Your task to perform on an android device: set the timer Image 0: 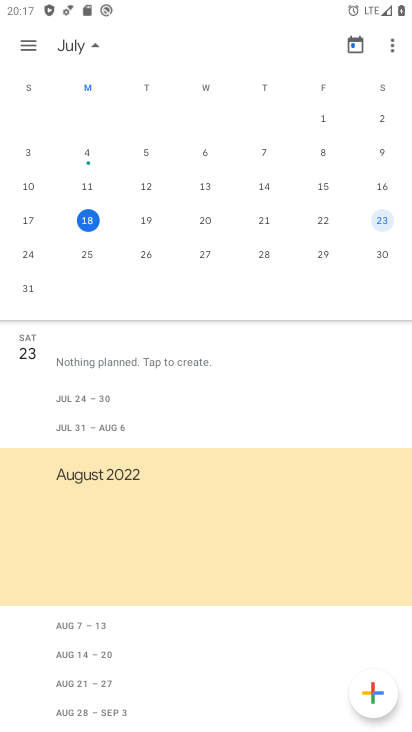
Step 0: press home button
Your task to perform on an android device: set the timer Image 1: 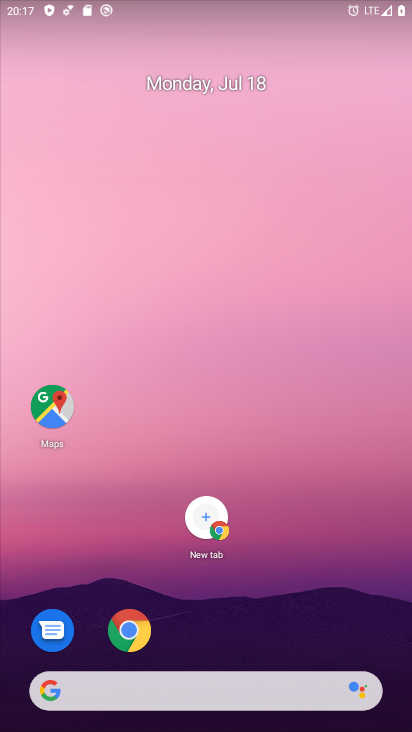
Step 1: drag from (191, 678) to (277, 208)
Your task to perform on an android device: set the timer Image 2: 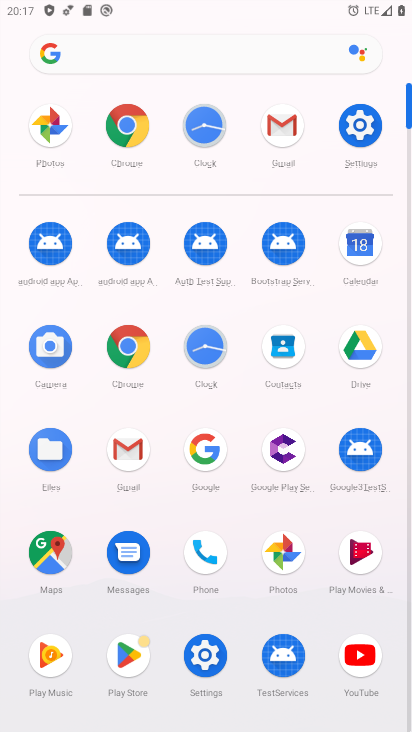
Step 2: click (188, 130)
Your task to perform on an android device: set the timer Image 3: 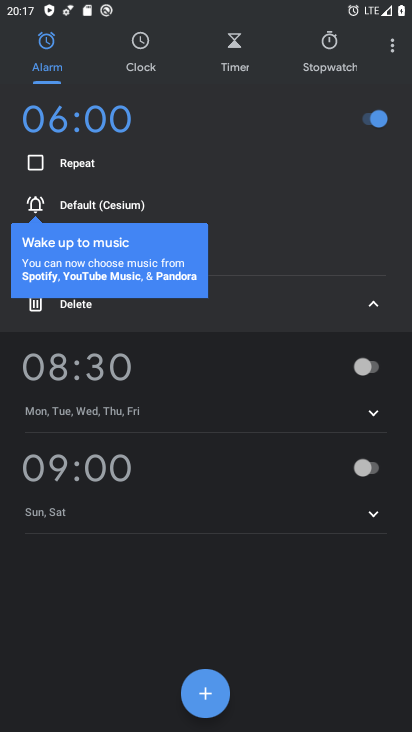
Step 3: click (224, 47)
Your task to perform on an android device: set the timer Image 4: 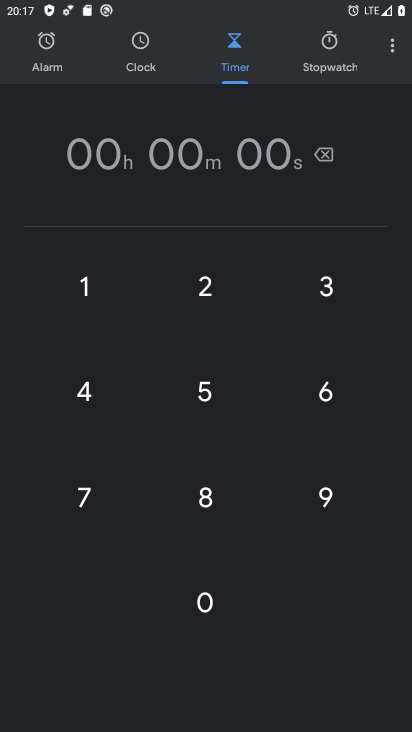
Step 4: click (204, 602)
Your task to perform on an android device: set the timer Image 5: 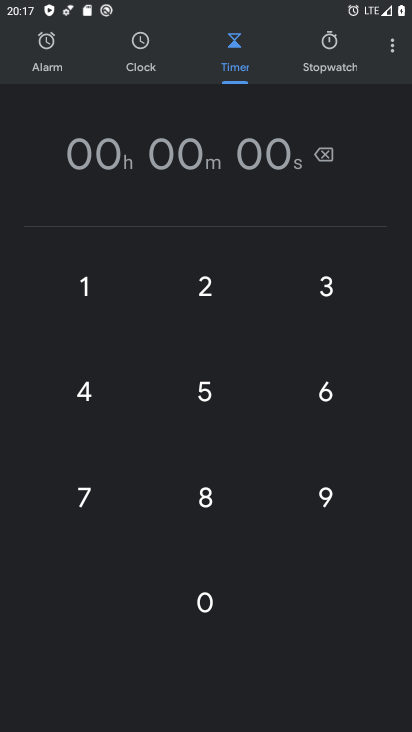
Step 5: click (212, 505)
Your task to perform on an android device: set the timer Image 6: 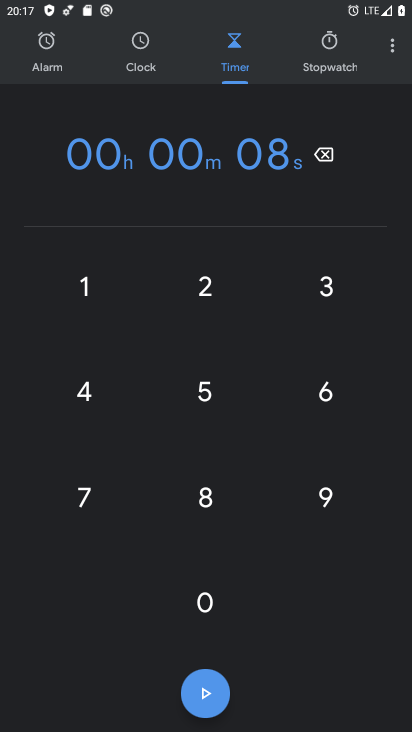
Step 6: click (214, 598)
Your task to perform on an android device: set the timer Image 7: 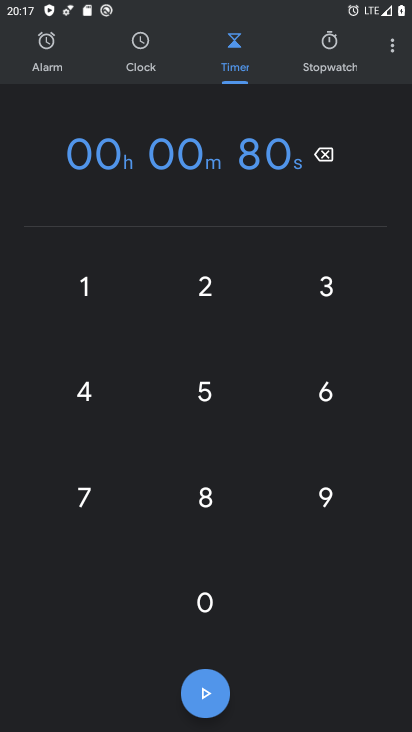
Step 7: click (197, 607)
Your task to perform on an android device: set the timer Image 8: 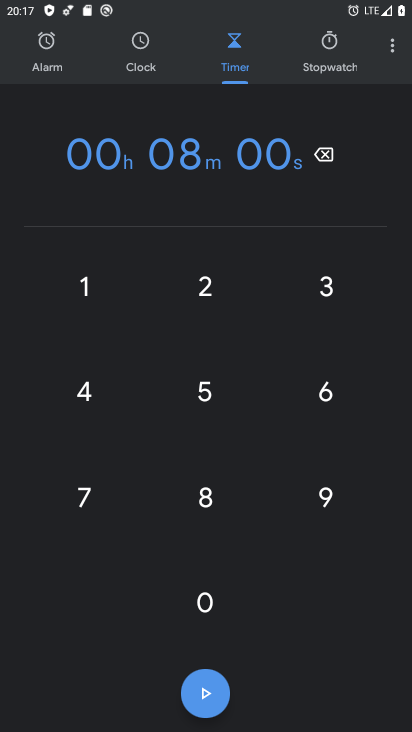
Step 8: click (213, 710)
Your task to perform on an android device: set the timer Image 9: 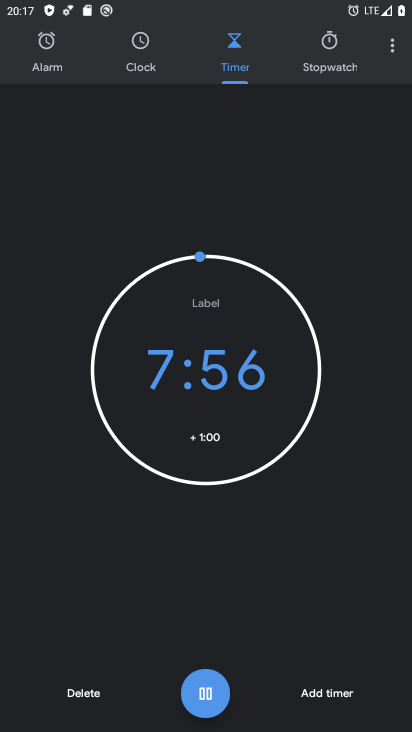
Step 9: task complete